Your task to perform on an android device: Open Wikipedia Image 0: 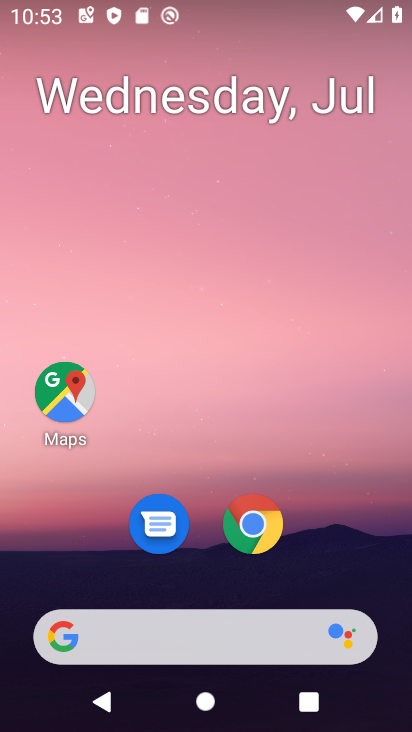
Step 0: click (255, 531)
Your task to perform on an android device: Open Wikipedia Image 1: 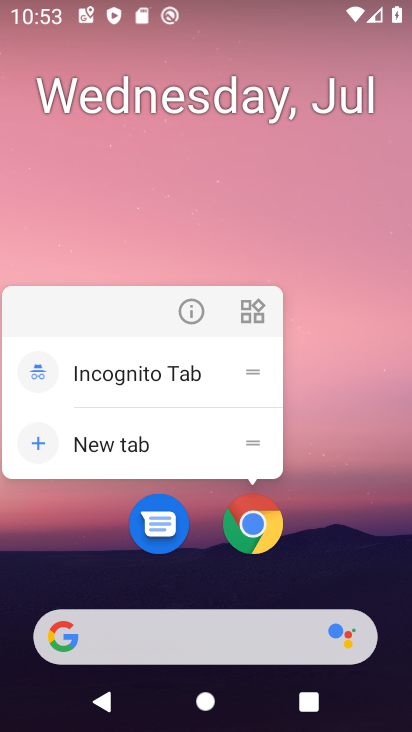
Step 1: click (255, 531)
Your task to perform on an android device: Open Wikipedia Image 2: 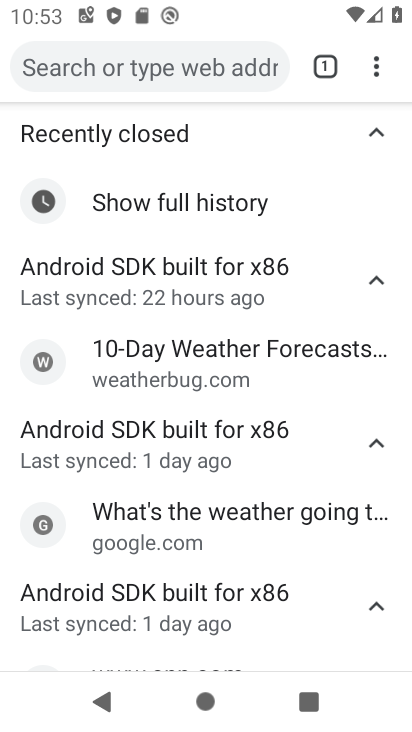
Step 2: drag from (373, 71) to (216, 145)
Your task to perform on an android device: Open Wikipedia Image 3: 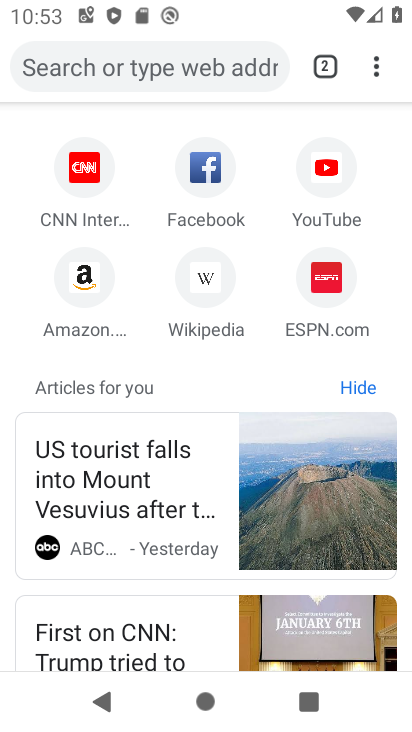
Step 3: click (203, 296)
Your task to perform on an android device: Open Wikipedia Image 4: 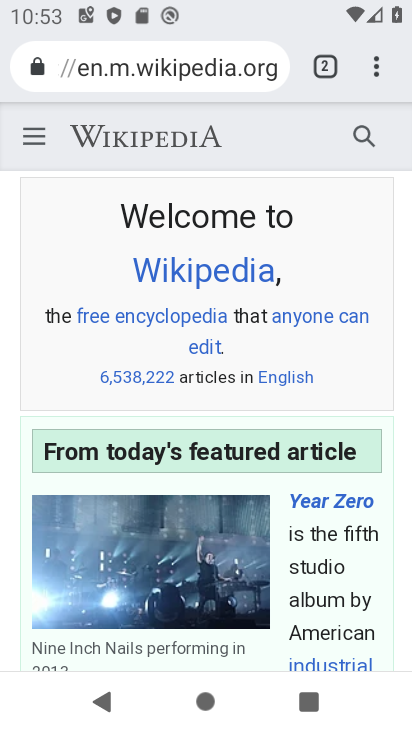
Step 4: task complete